Your task to perform on an android device: change the clock display to digital Image 0: 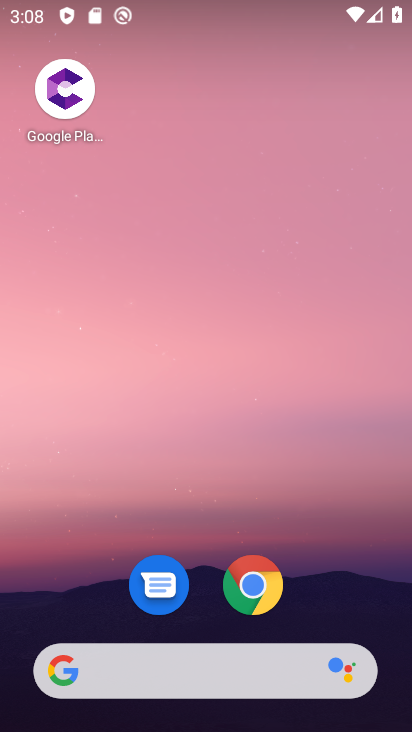
Step 0: drag from (270, 488) to (252, 5)
Your task to perform on an android device: change the clock display to digital Image 1: 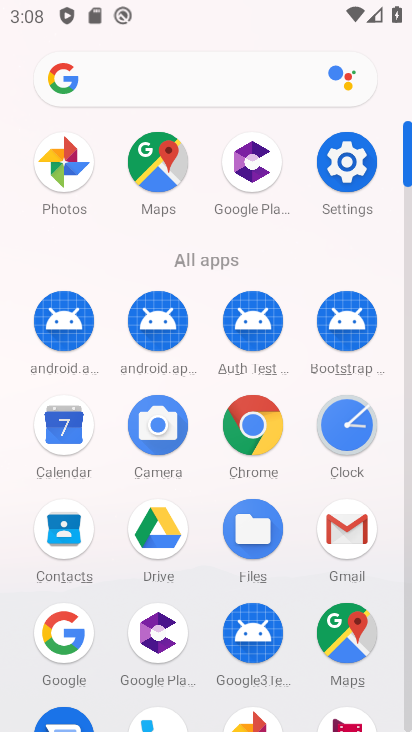
Step 1: click (345, 430)
Your task to perform on an android device: change the clock display to digital Image 2: 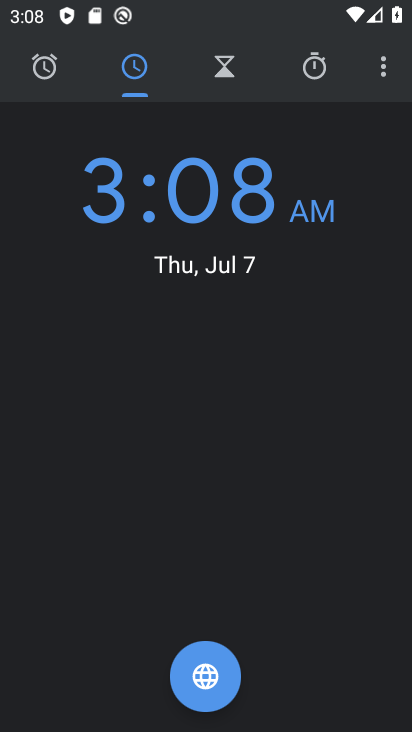
Step 2: task complete